Your task to perform on an android device: Open the Play Movies app and select the watchlist tab. Image 0: 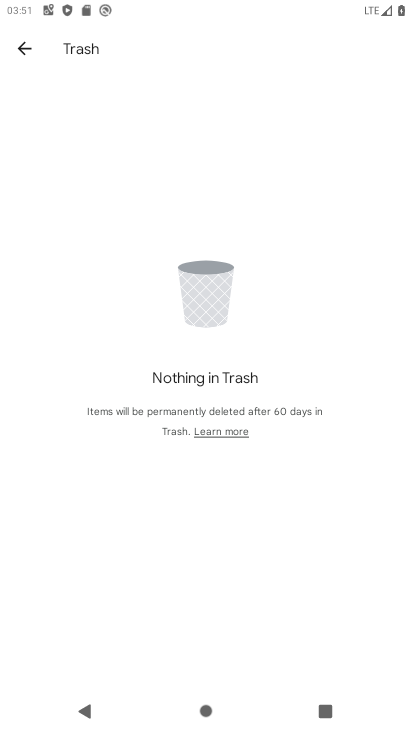
Step 0: press home button
Your task to perform on an android device: Open the Play Movies app and select the watchlist tab. Image 1: 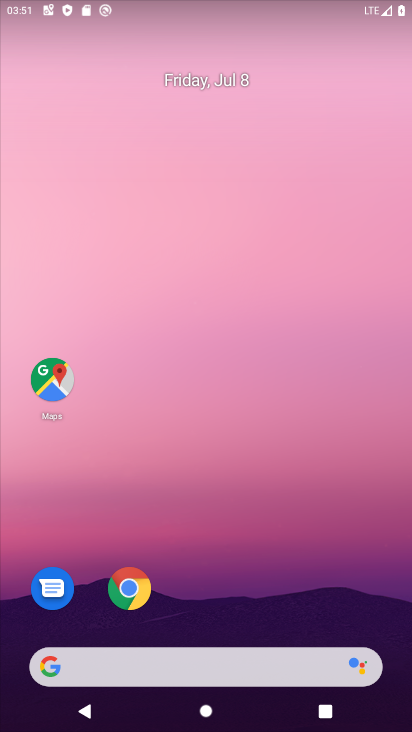
Step 1: drag from (207, 551) to (296, 148)
Your task to perform on an android device: Open the Play Movies app and select the watchlist tab. Image 2: 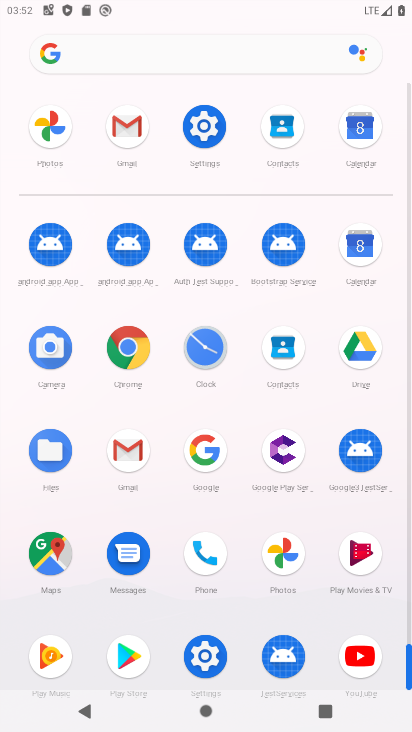
Step 2: click (371, 566)
Your task to perform on an android device: Open the Play Movies app and select the watchlist tab. Image 3: 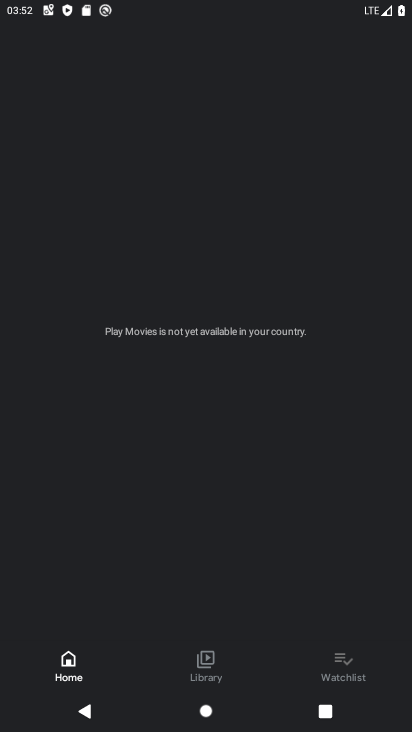
Step 3: click (344, 661)
Your task to perform on an android device: Open the Play Movies app and select the watchlist tab. Image 4: 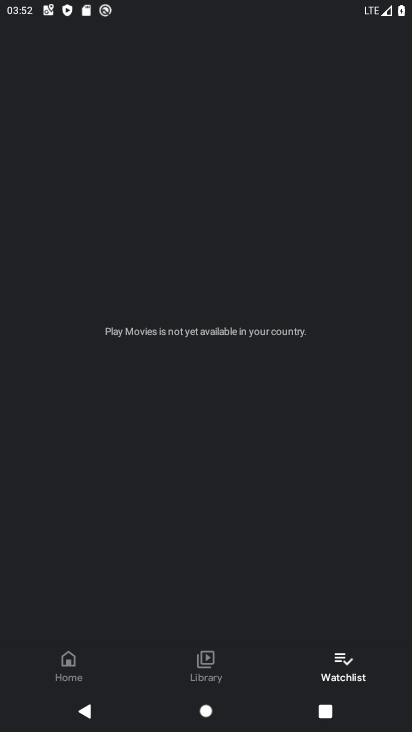
Step 4: task complete